Your task to perform on an android device: View the shopping cart on bestbuy.com. Image 0: 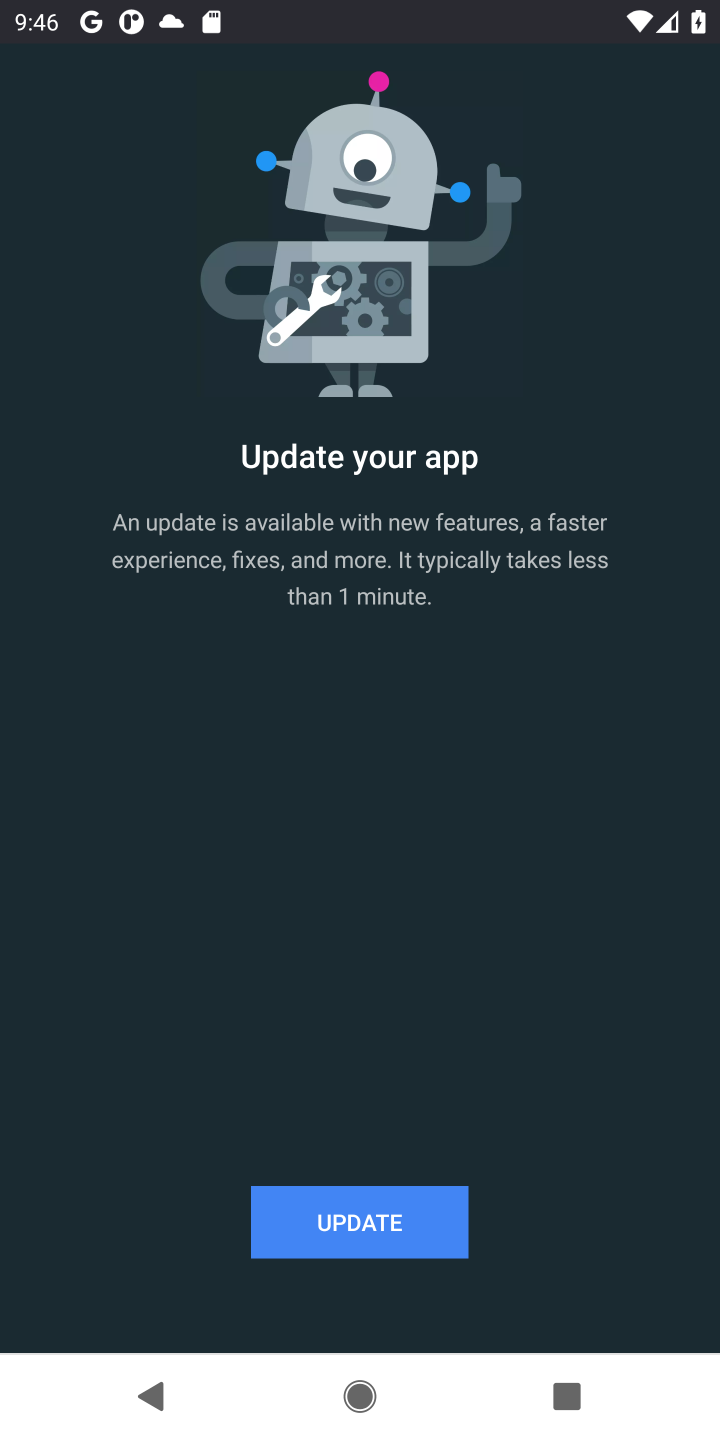
Step 0: press home button
Your task to perform on an android device: View the shopping cart on bestbuy.com. Image 1: 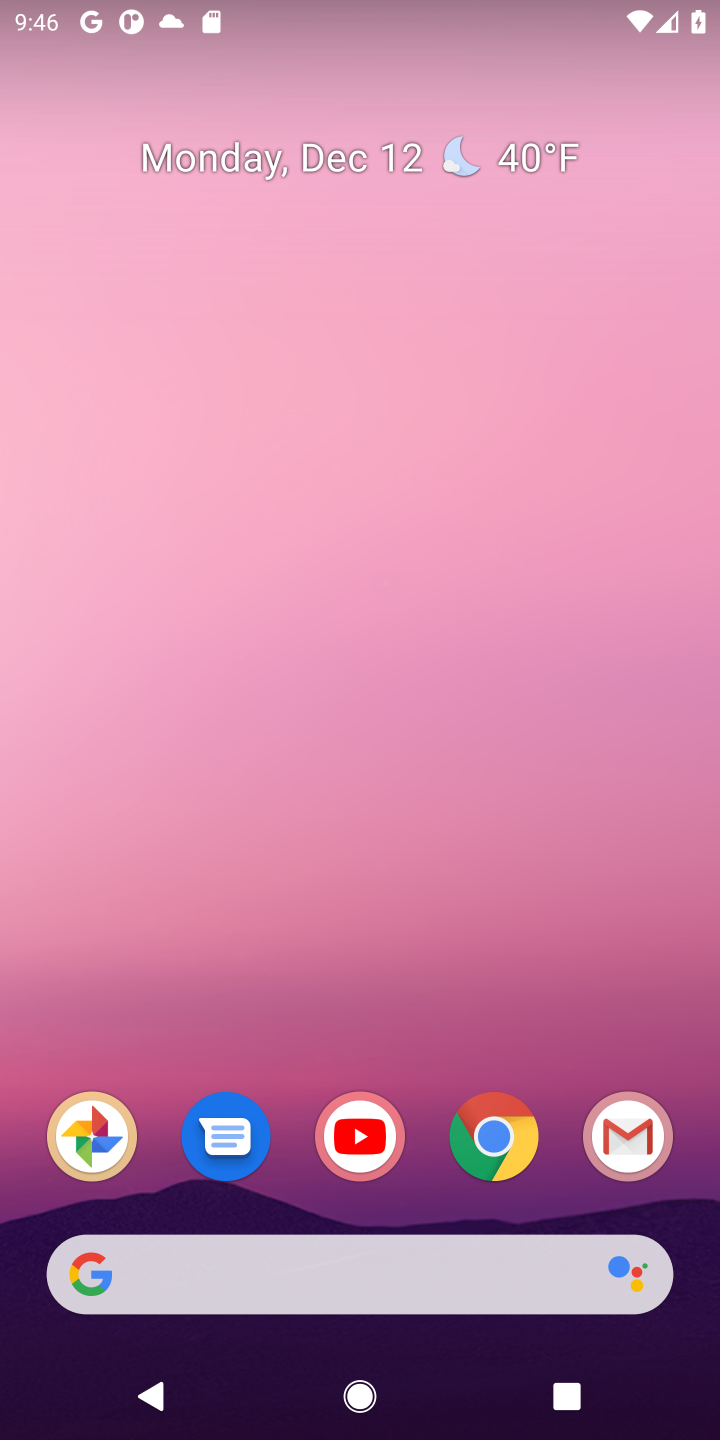
Step 1: click (506, 1152)
Your task to perform on an android device: View the shopping cart on bestbuy.com. Image 2: 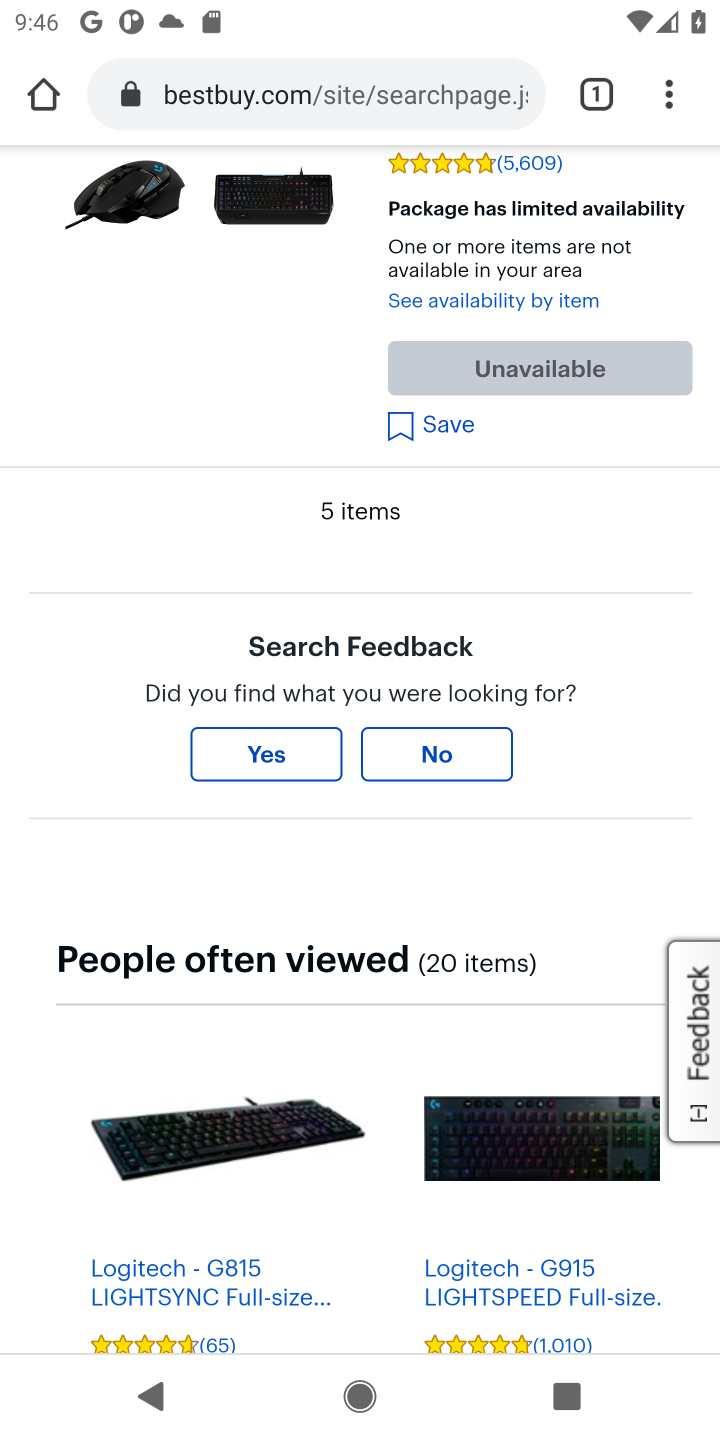
Step 2: drag from (299, 389) to (257, 1016)
Your task to perform on an android device: View the shopping cart on bestbuy.com. Image 3: 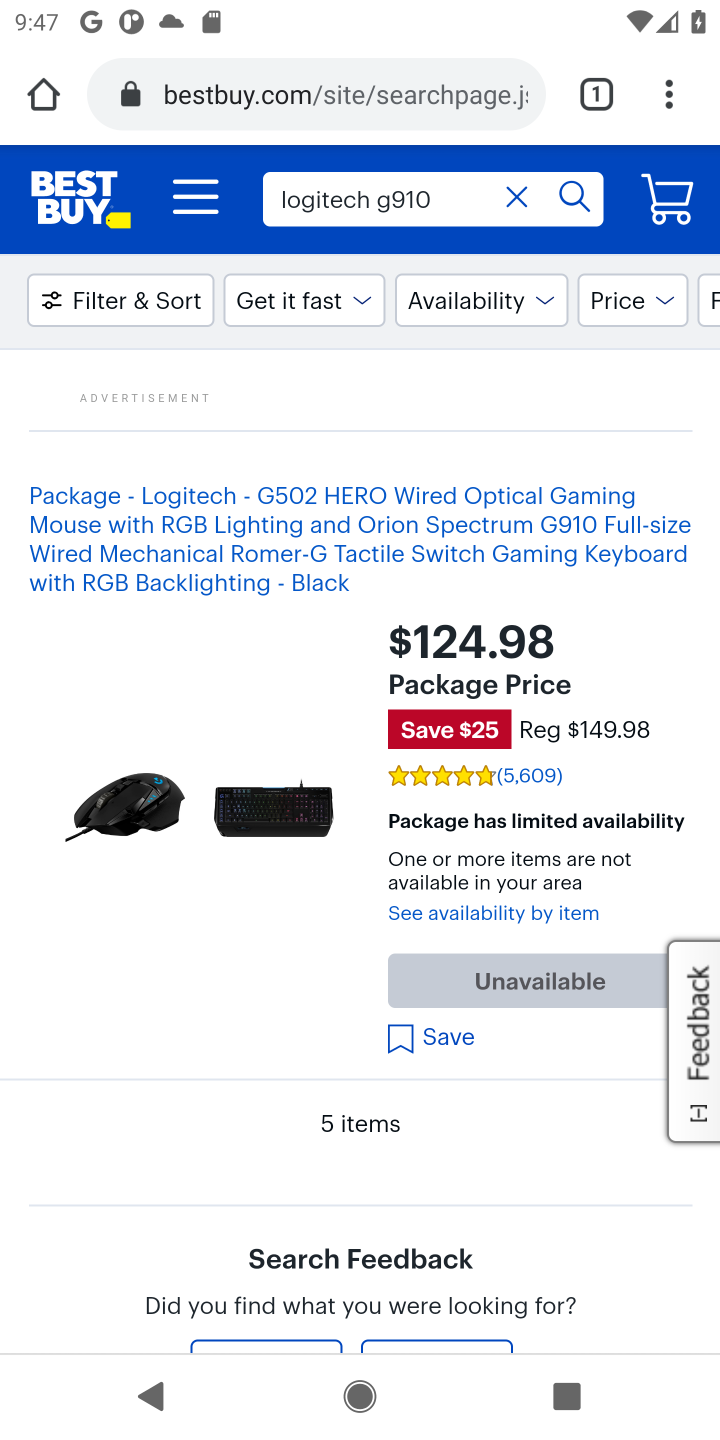
Step 3: click (660, 213)
Your task to perform on an android device: View the shopping cart on bestbuy.com. Image 4: 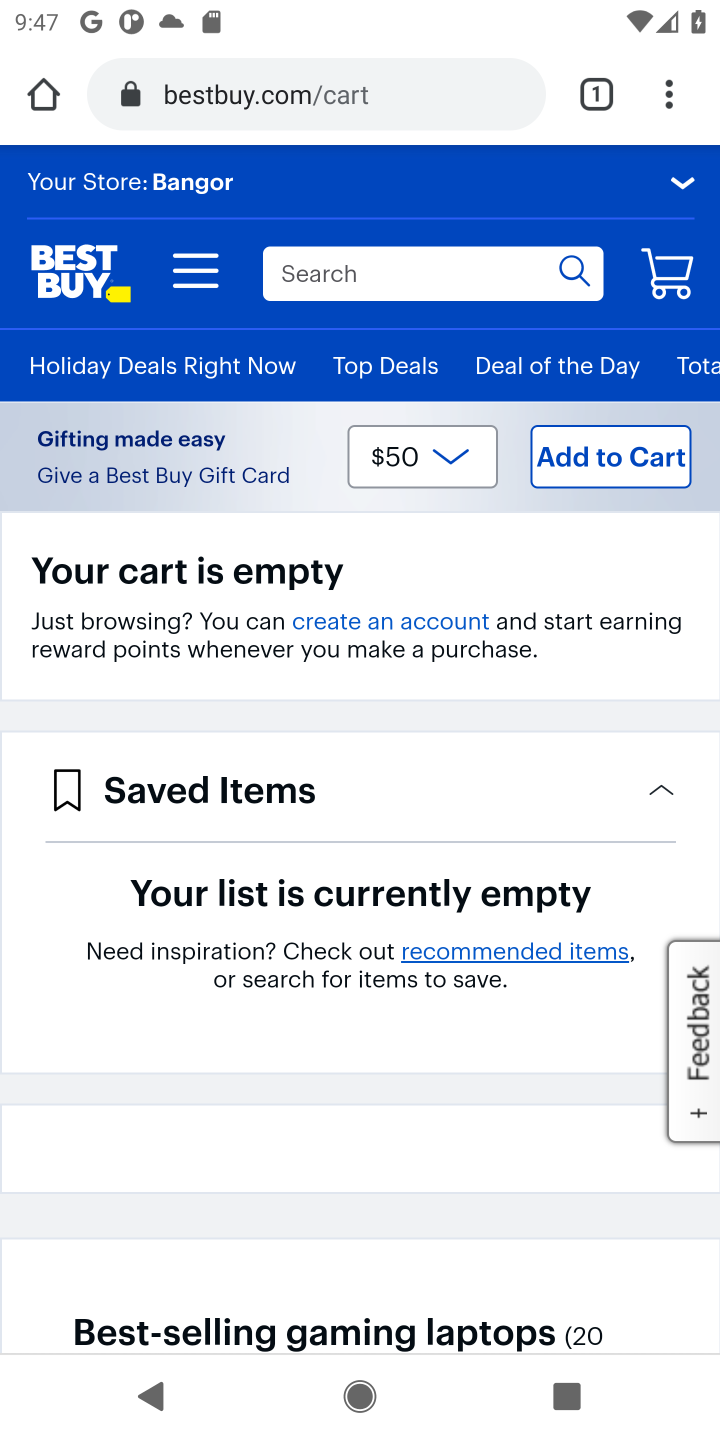
Step 4: task complete